Your task to perform on an android device: change the clock display to analog Image 0: 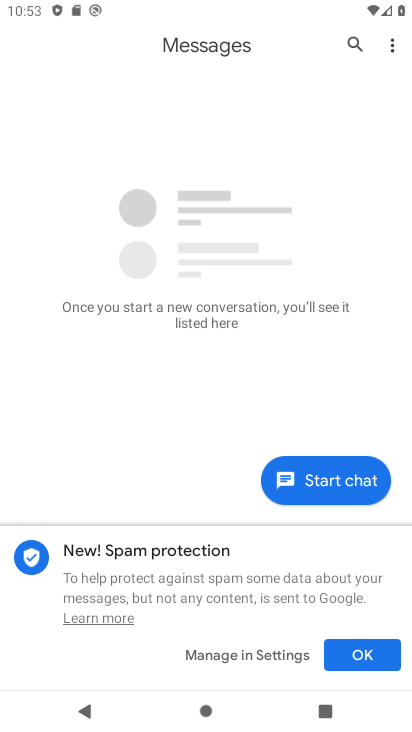
Step 0: press home button
Your task to perform on an android device: change the clock display to analog Image 1: 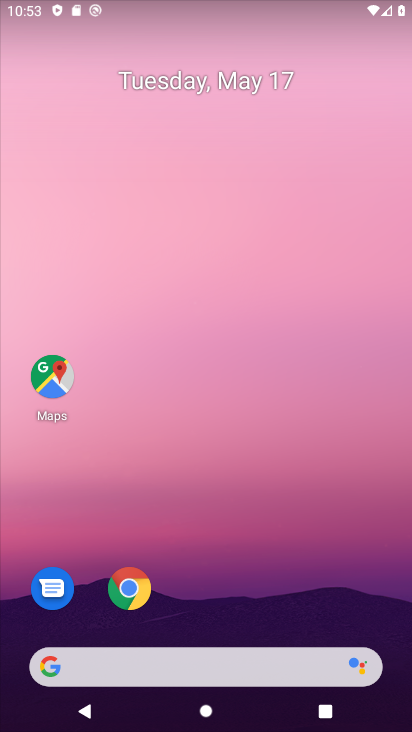
Step 1: drag from (223, 592) to (206, 175)
Your task to perform on an android device: change the clock display to analog Image 2: 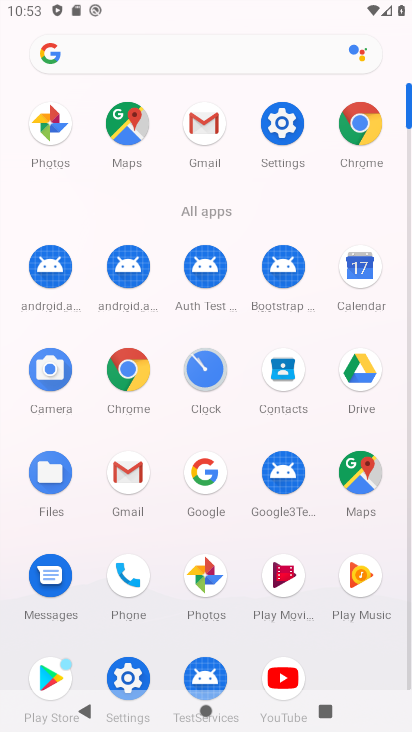
Step 2: click (199, 380)
Your task to perform on an android device: change the clock display to analog Image 3: 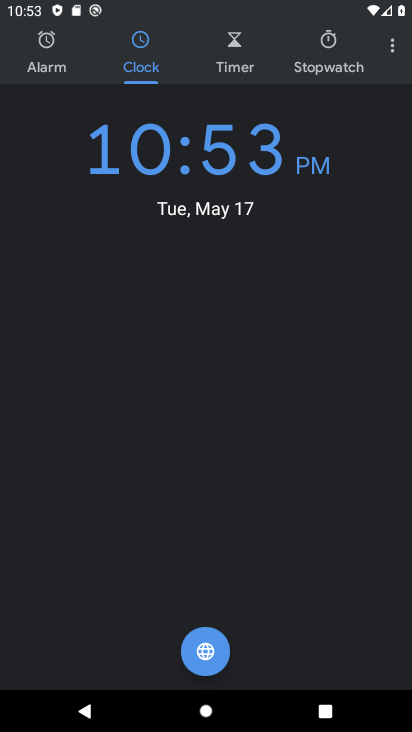
Step 3: drag from (391, 47) to (336, 98)
Your task to perform on an android device: change the clock display to analog Image 4: 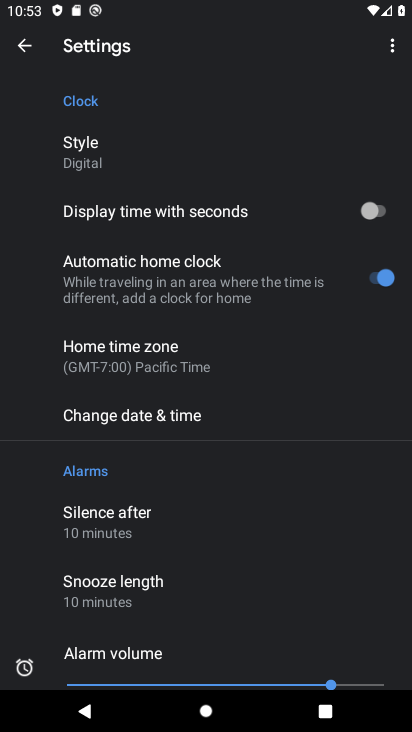
Step 4: click (96, 166)
Your task to perform on an android device: change the clock display to analog Image 5: 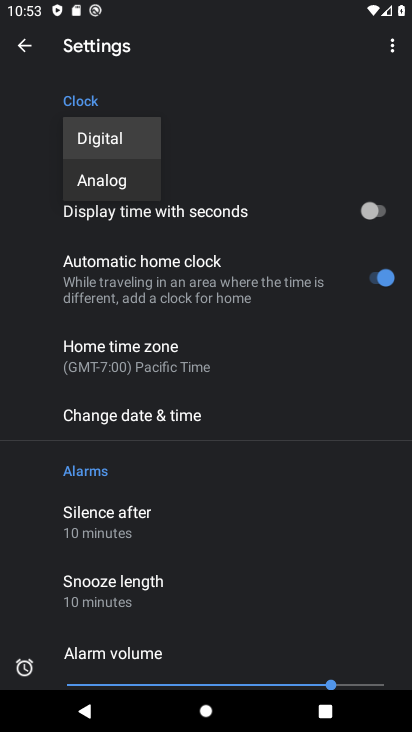
Step 5: click (127, 187)
Your task to perform on an android device: change the clock display to analog Image 6: 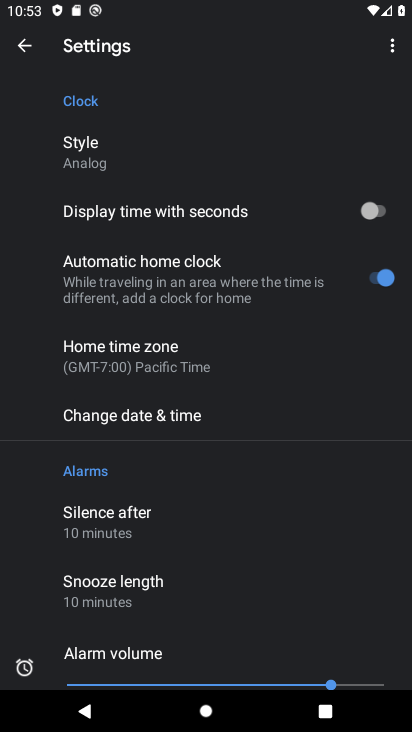
Step 6: task complete